Your task to perform on an android device: toggle notifications settings in the gmail app Image 0: 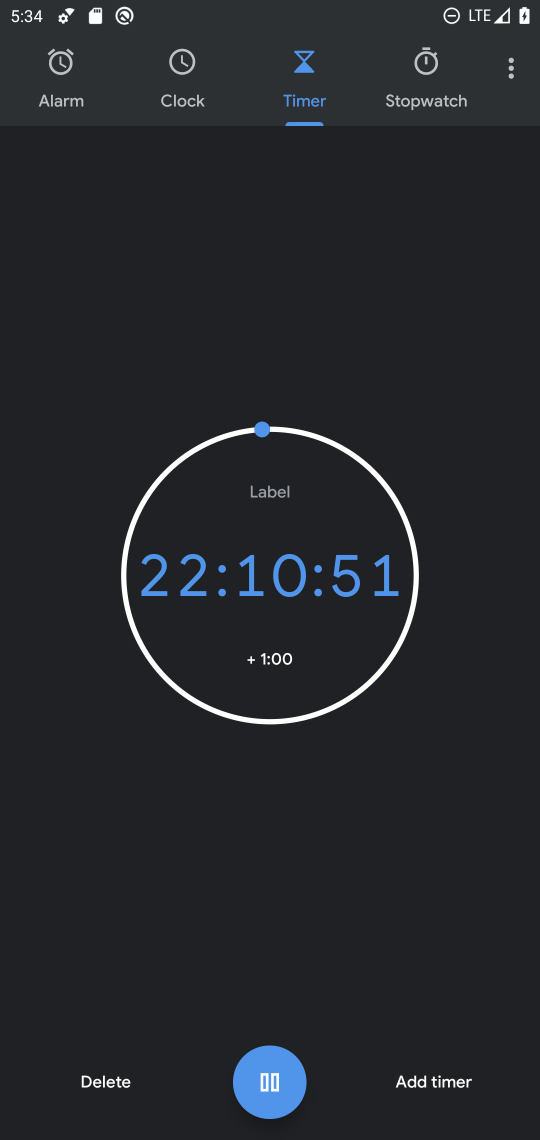
Step 0: press home button
Your task to perform on an android device: toggle notifications settings in the gmail app Image 1: 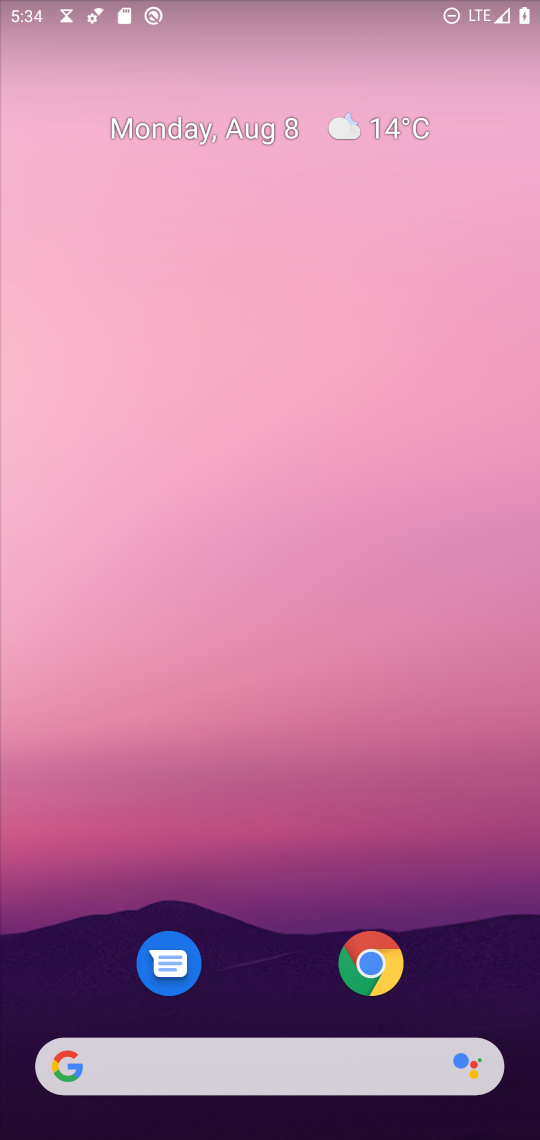
Step 1: drag from (284, 927) to (218, 278)
Your task to perform on an android device: toggle notifications settings in the gmail app Image 2: 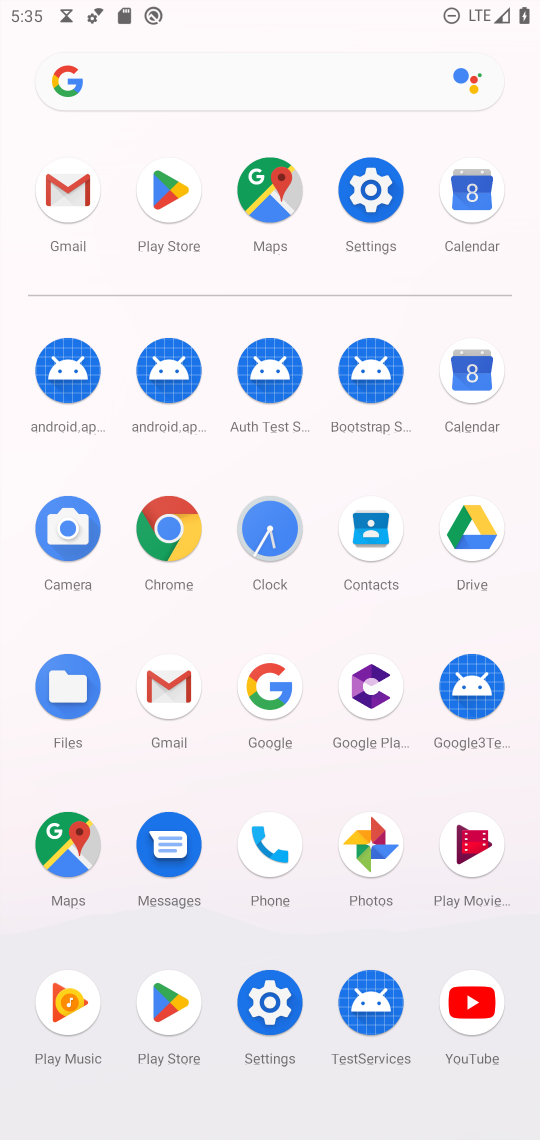
Step 2: click (165, 690)
Your task to perform on an android device: toggle notifications settings in the gmail app Image 3: 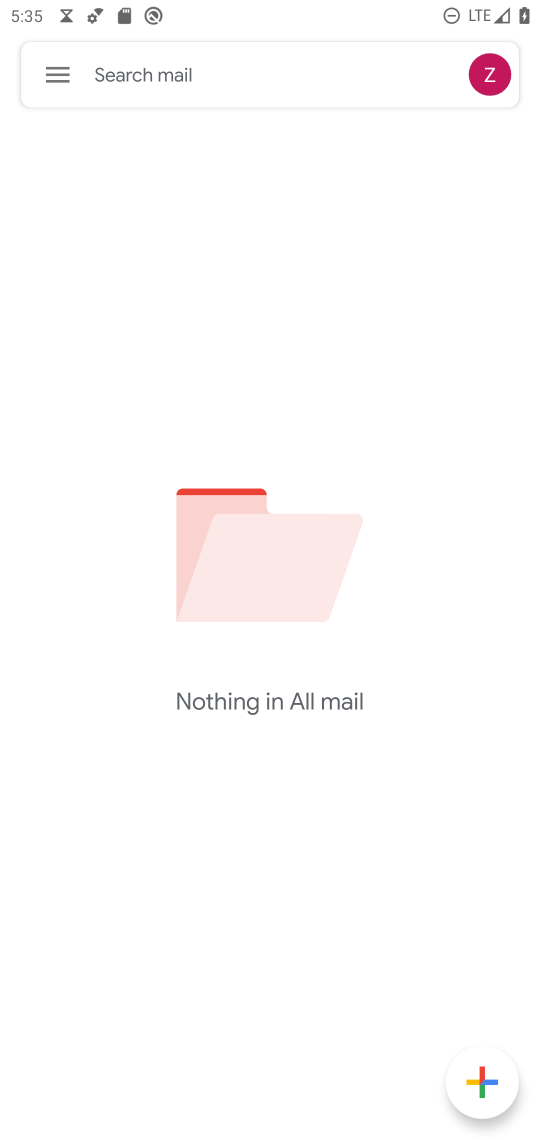
Step 3: click (58, 67)
Your task to perform on an android device: toggle notifications settings in the gmail app Image 4: 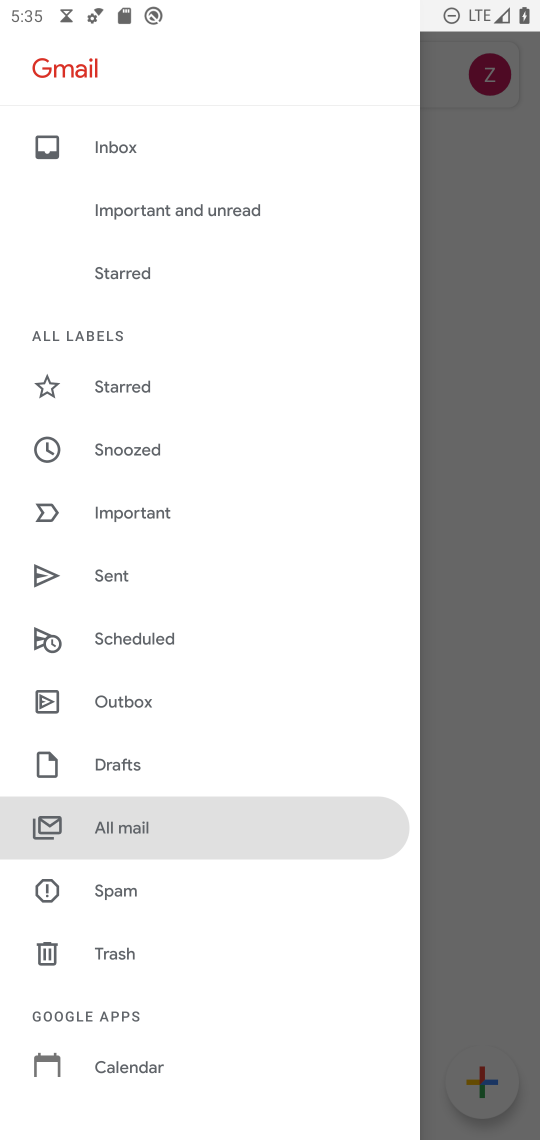
Step 4: drag from (135, 1015) to (73, 284)
Your task to perform on an android device: toggle notifications settings in the gmail app Image 5: 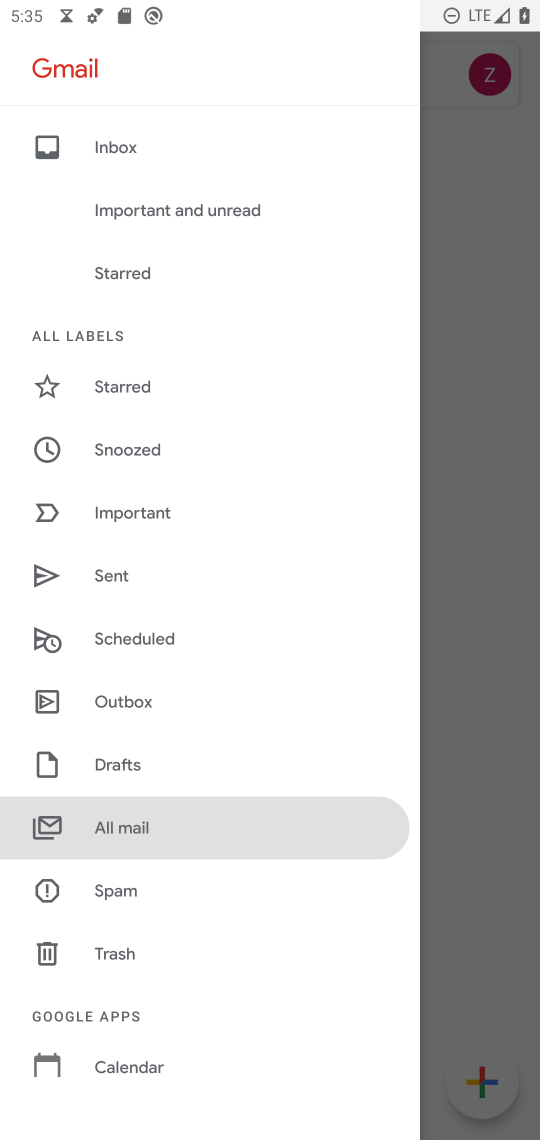
Step 5: drag from (138, 987) to (138, 390)
Your task to perform on an android device: toggle notifications settings in the gmail app Image 6: 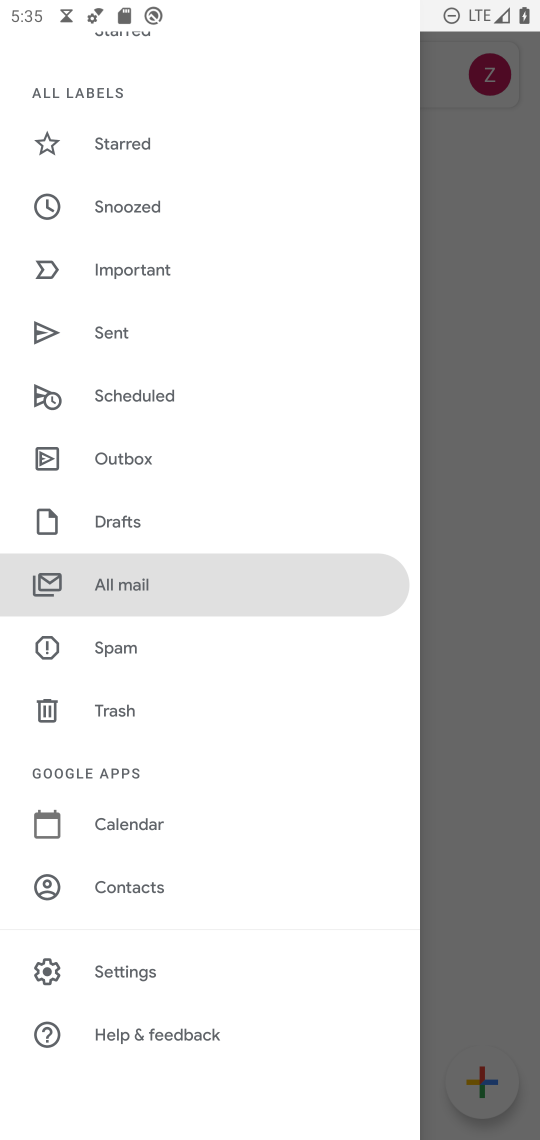
Step 6: click (175, 961)
Your task to perform on an android device: toggle notifications settings in the gmail app Image 7: 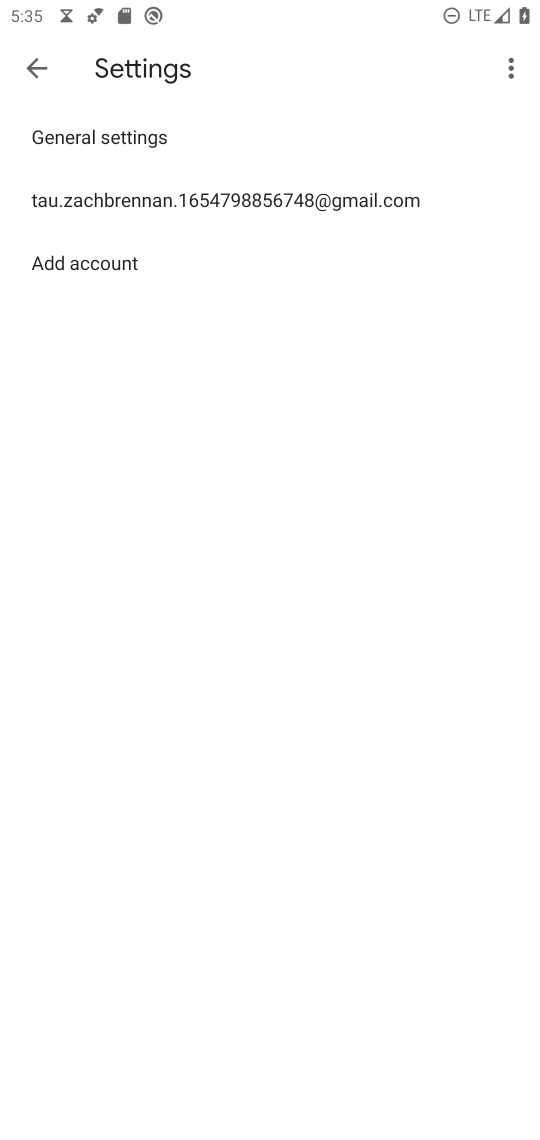
Step 7: click (241, 196)
Your task to perform on an android device: toggle notifications settings in the gmail app Image 8: 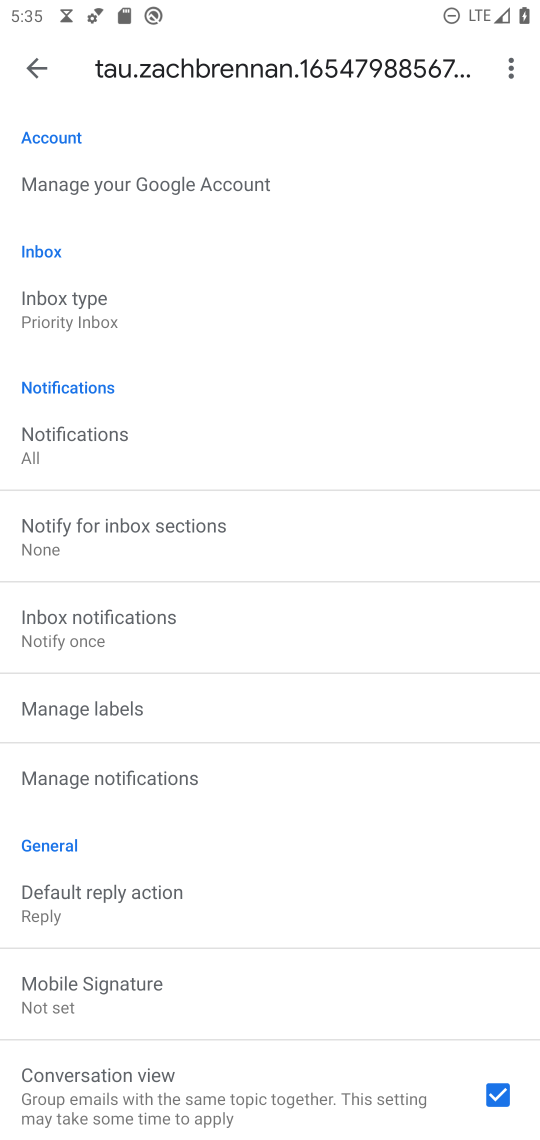
Step 8: click (162, 759)
Your task to perform on an android device: toggle notifications settings in the gmail app Image 9: 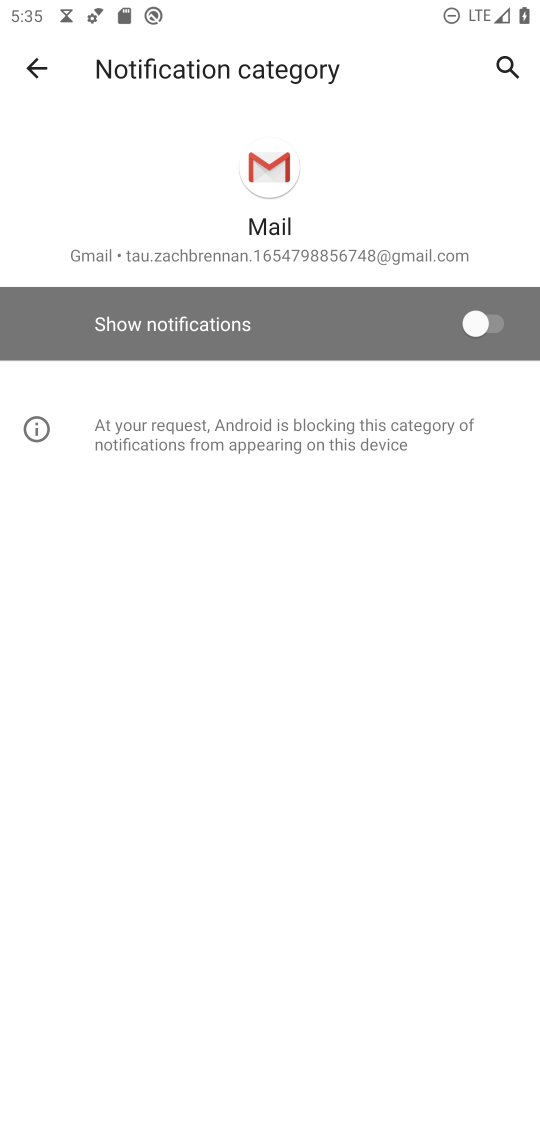
Step 9: click (494, 314)
Your task to perform on an android device: toggle notifications settings in the gmail app Image 10: 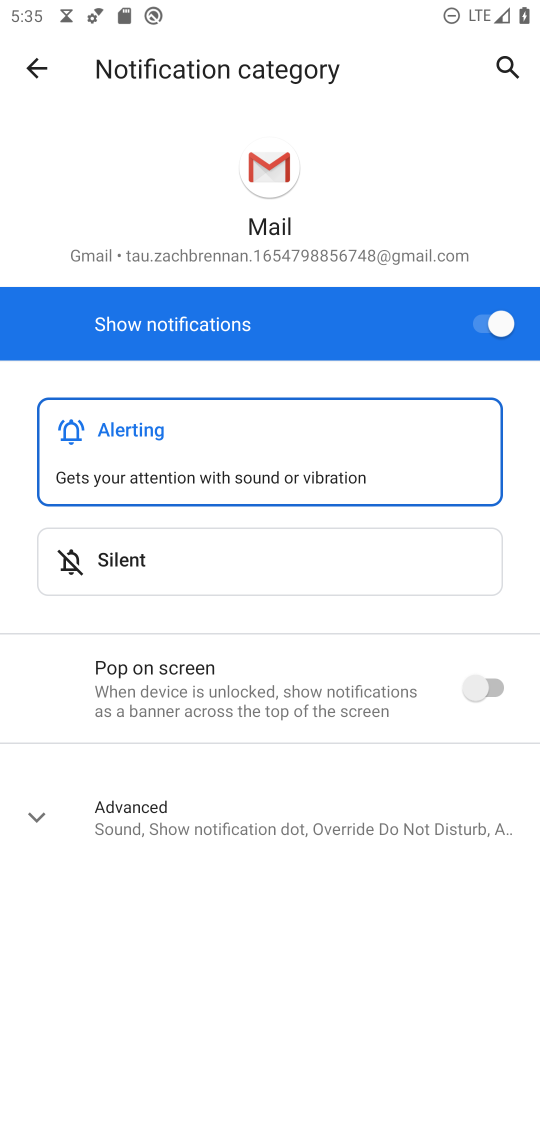
Step 10: task complete